Your task to perform on an android device: Show the shopping cart on walmart.com. Search for "beats solo 3" on walmart.com, select the first entry, and add it to the cart. Image 0: 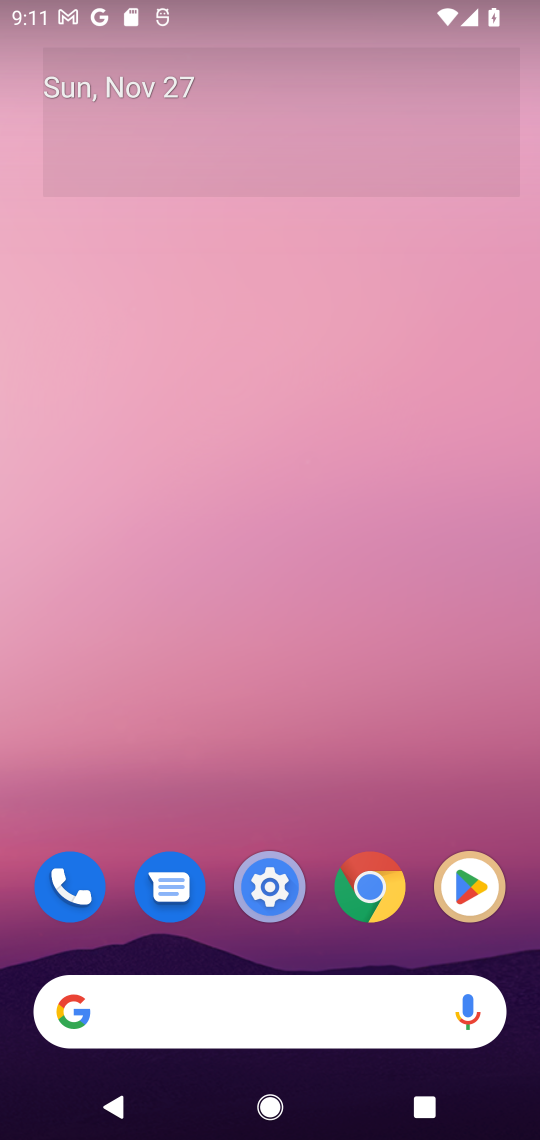
Step 0: click (158, 1012)
Your task to perform on an android device: Show the shopping cart on walmart.com. Search for "beats solo 3" on walmart.com, select the first entry, and add it to the cart. Image 1: 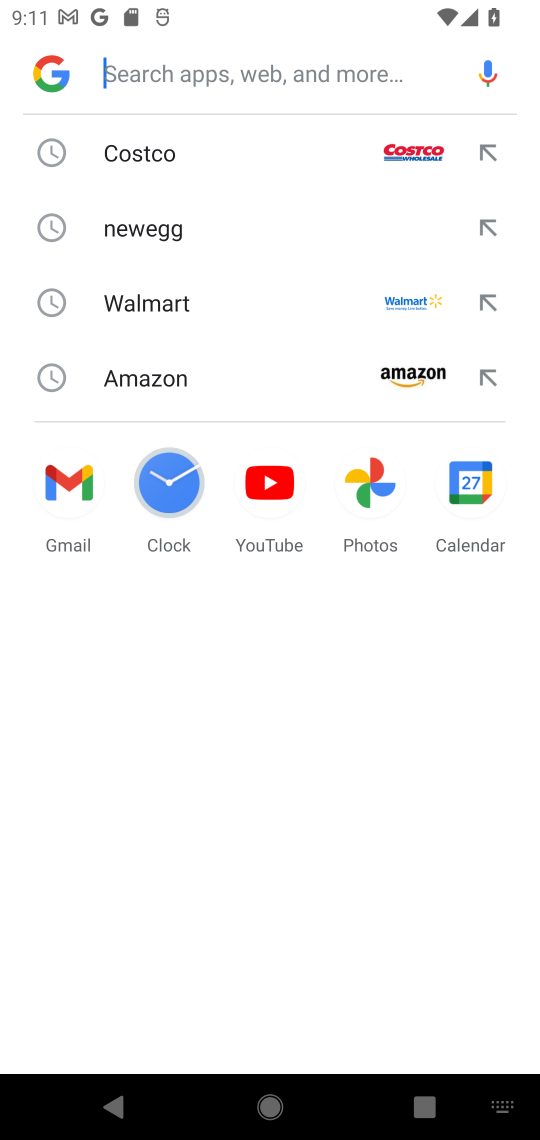
Step 1: click (242, 304)
Your task to perform on an android device: Show the shopping cart on walmart.com. Search for "beats solo 3" on walmart.com, select the first entry, and add it to the cart. Image 2: 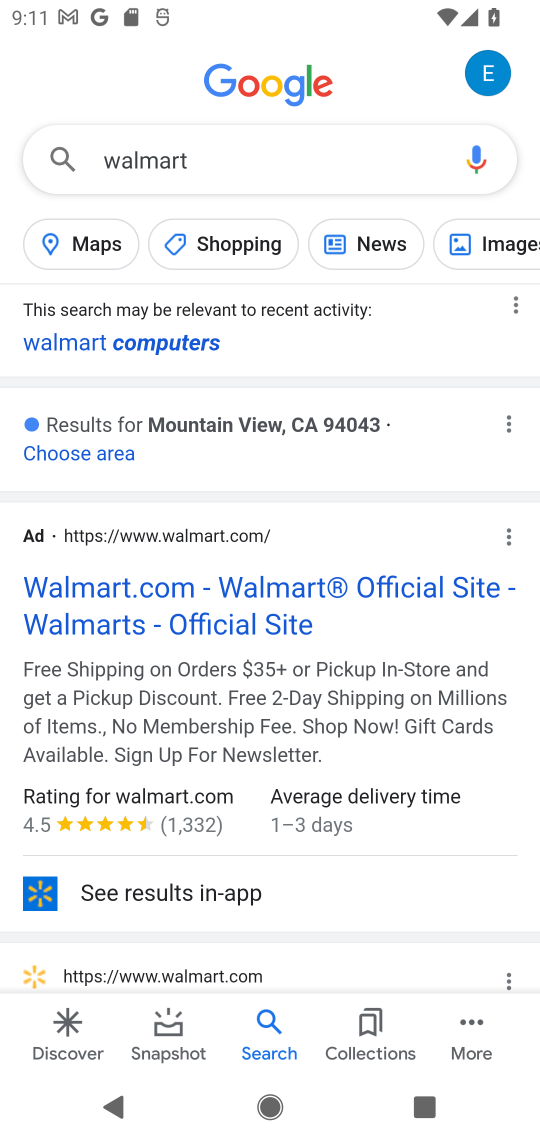
Step 2: click (93, 622)
Your task to perform on an android device: Show the shopping cart on walmart.com. Search for "beats solo 3" on walmart.com, select the first entry, and add it to the cart. Image 3: 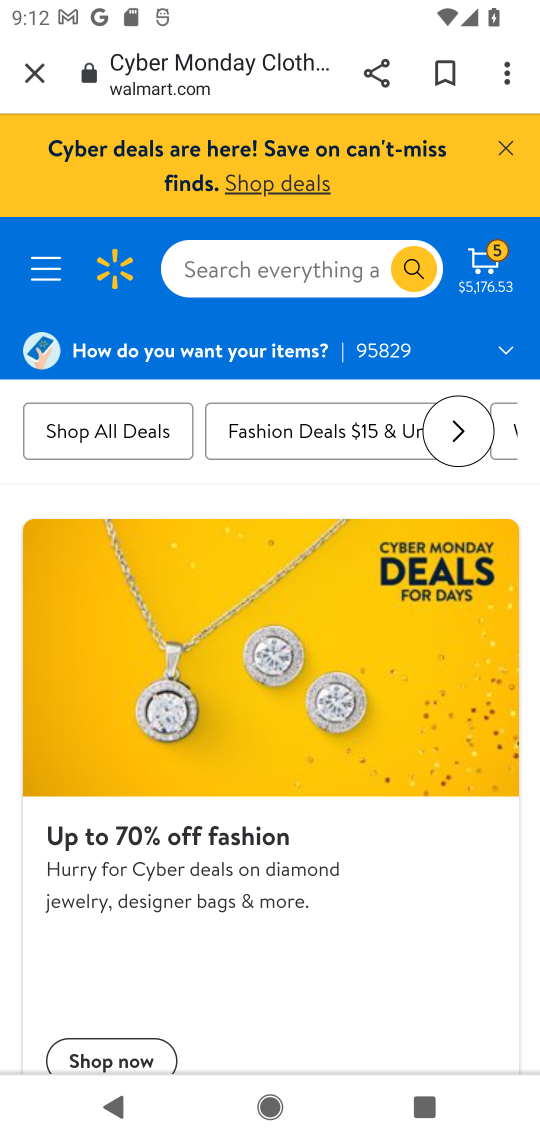
Step 3: click (229, 260)
Your task to perform on an android device: Show the shopping cart on walmart.com. Search for "beats solo 3" on walmart.com, select the first entry, and add it to the cart. Image 4: 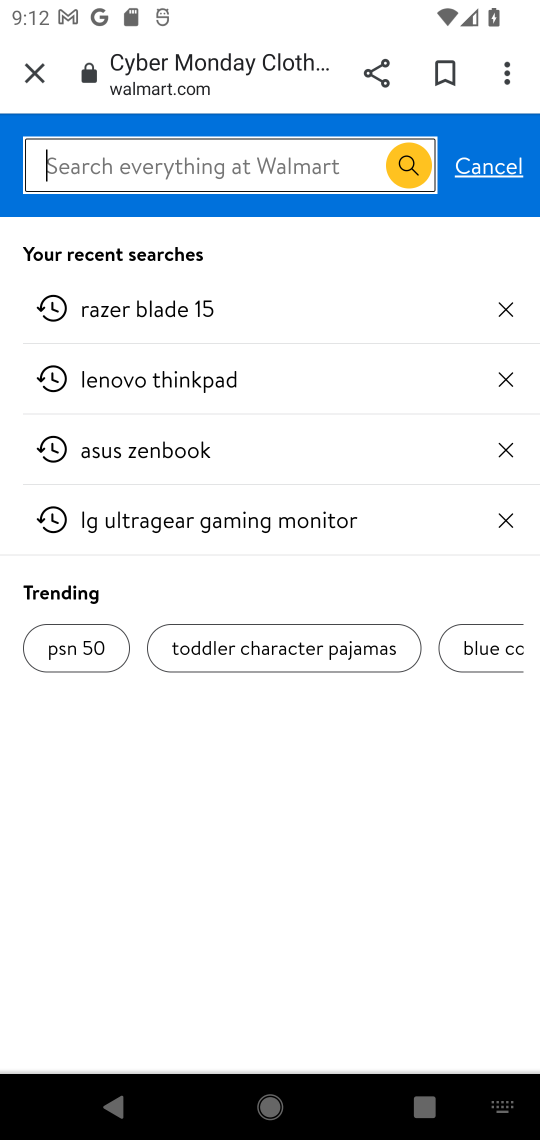
Step 4: type "beats solo3"
Your task to perform on an android device: Show the shopping cart on walmart.com. Search for "beats solo 3" on walmart.com, select the first entry, and add it to the cart. Image 5: 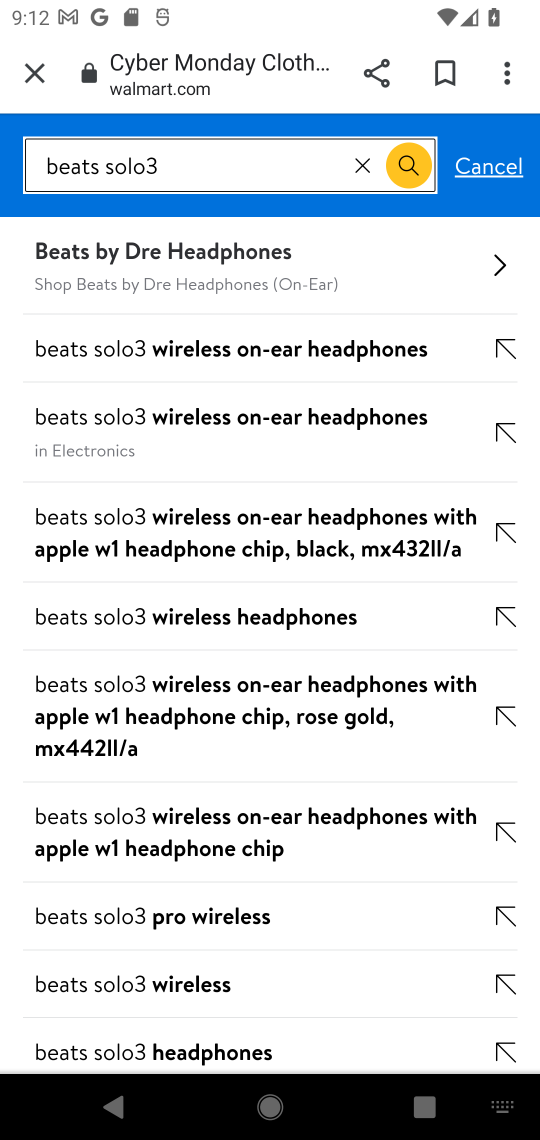
Step 5: click (91, 362)
Your task to perform on an android device: Show the shopping cart on walmart.com. Search for "beats solo 3" on walmart.com, select the first entry, and add it to the cart. Image 6: 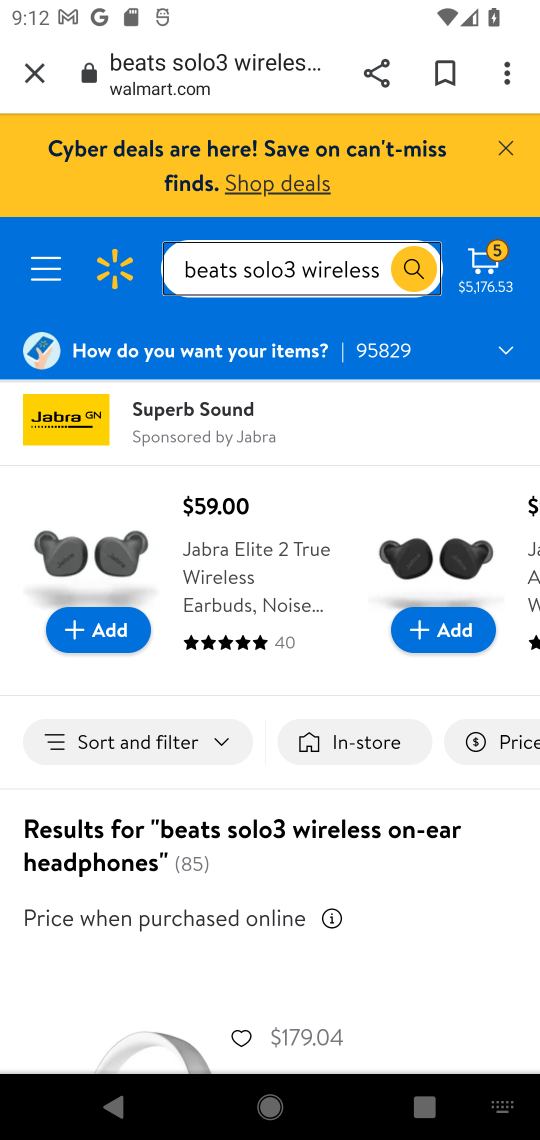
Step 6: click (229, 1046)
Your task to perform on an android device: Show the shopping cart on walmart.com. Search for "beats solo 3" on walmart.com, select the first entry, and add it to the cart. Image 7: 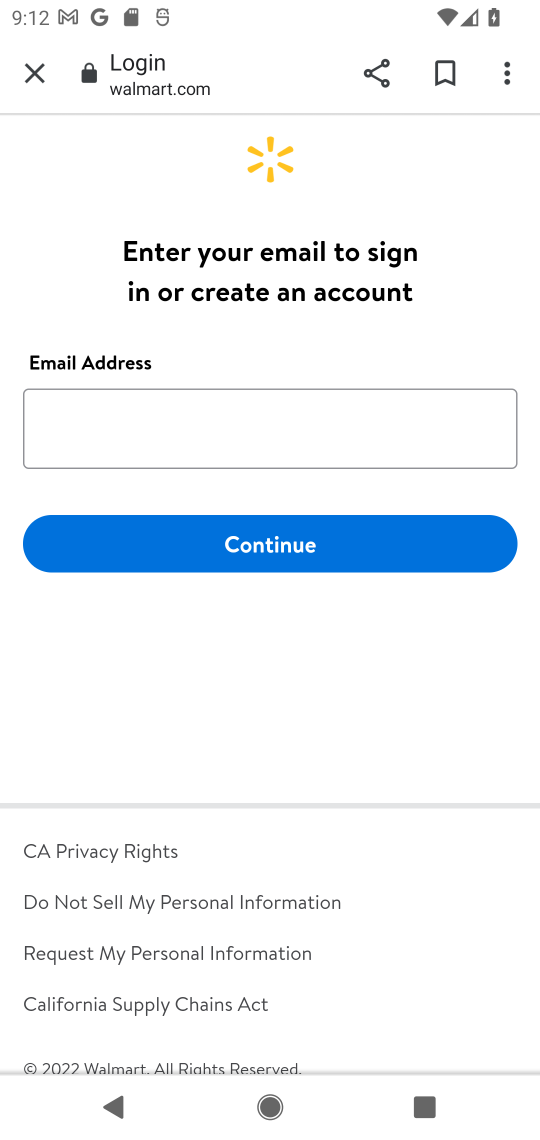
Step 7: task complete